Your task to perform on an android device: change the clock style Image 0: 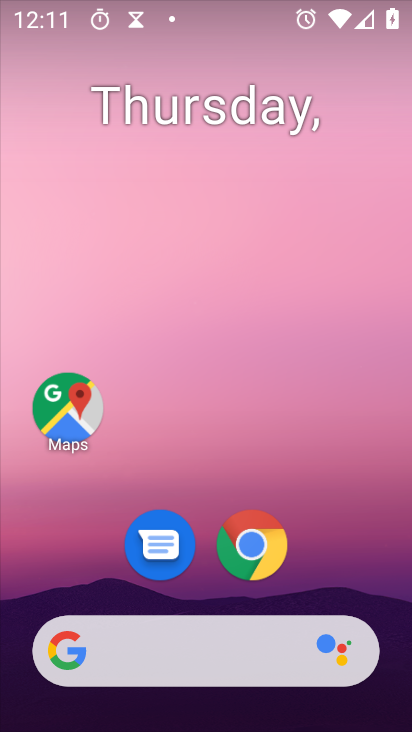
Step 0: press home button
Your task to perform on an android device: change the clock style Image 1: 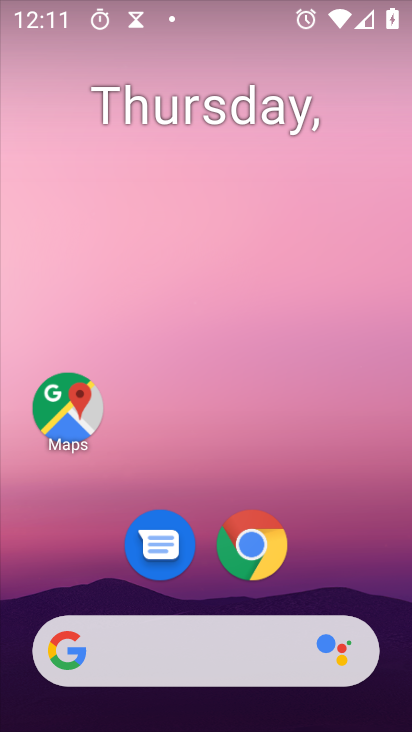
Step 1: drag from (232, 637) to (363, 123)
Your task to perform on an android device: change the clock style Image 2: 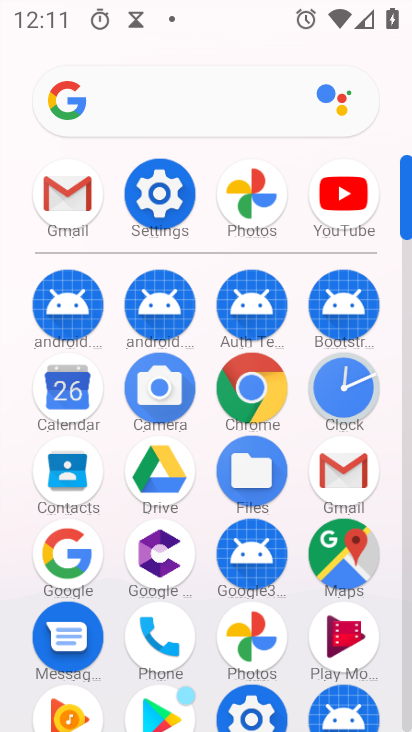
Step 2: click (341, 397)
Your task to perform on an android device: change the clock style Image 3: 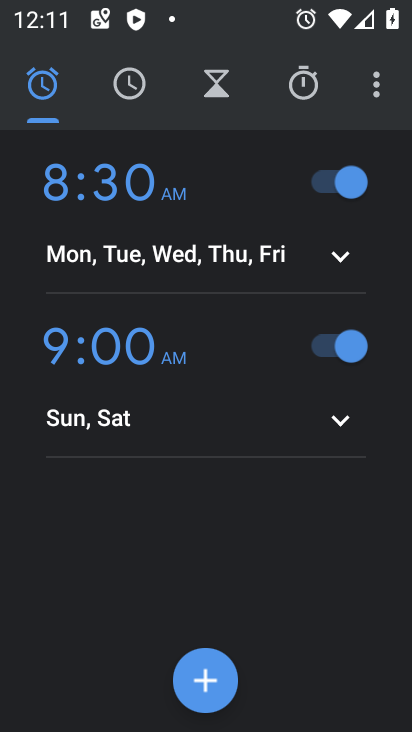
Step 3: click (371, 89)
Your task to perform on an android device: change the clock style Image 4: 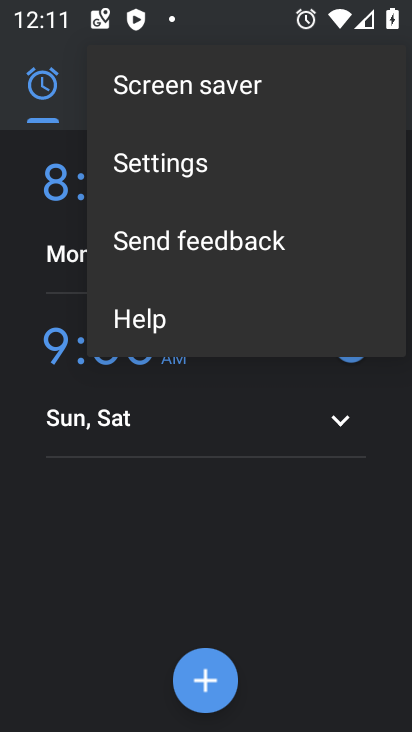
Step 4: click (175, 171)
Your task to perform on an android device: change the clock style Image 5: 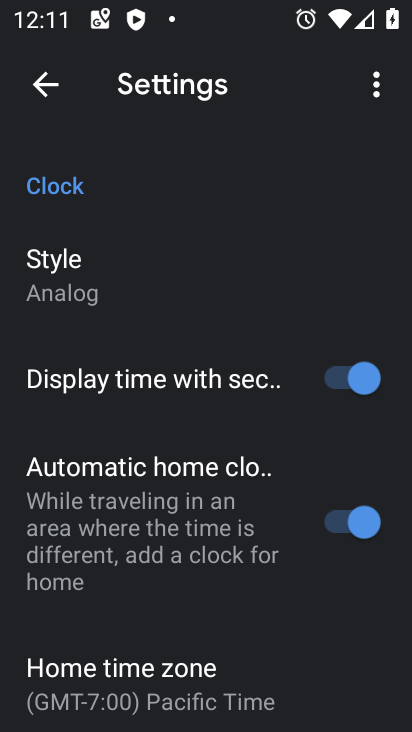
Step 5: click (74, 280)
Your task to perform on an android device: change the clock style Image 6: 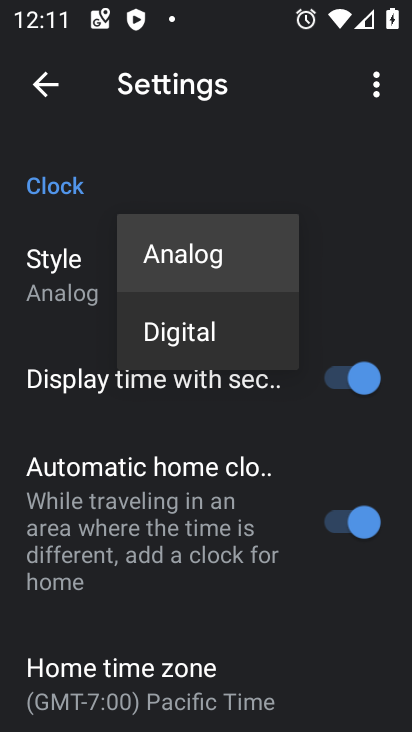
Step 6: click (175, 349)
Your task to perform on an android device: change the clock style Image 7: 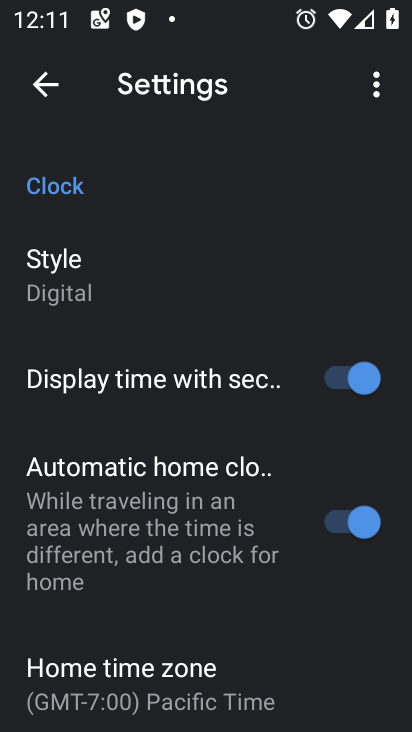
Step 7: task complete